Your task to perform on an android device: Open calendar and show me the second week of next month Image 0: 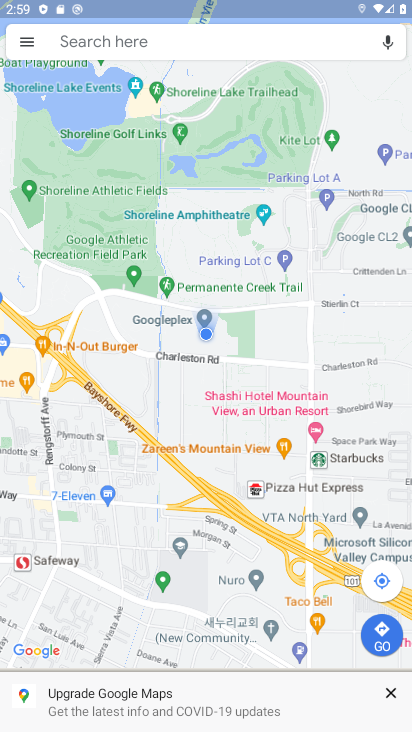
Step 0: task complete